Your task to perform on an android device: Go to Maps Image 0: 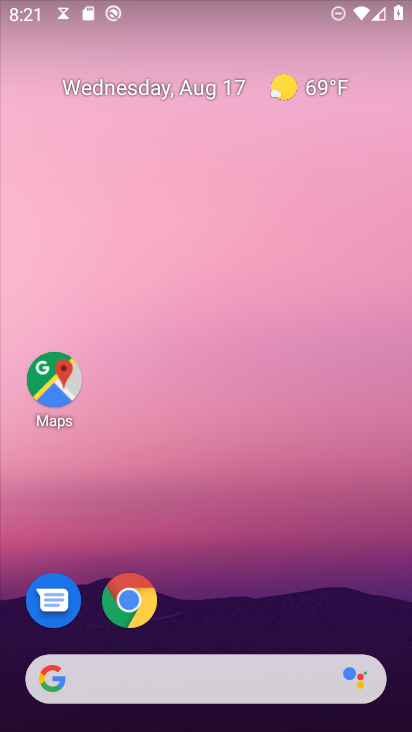
Step 0: press home button
Your task to perform on an android device: Go to Maps Image 1: 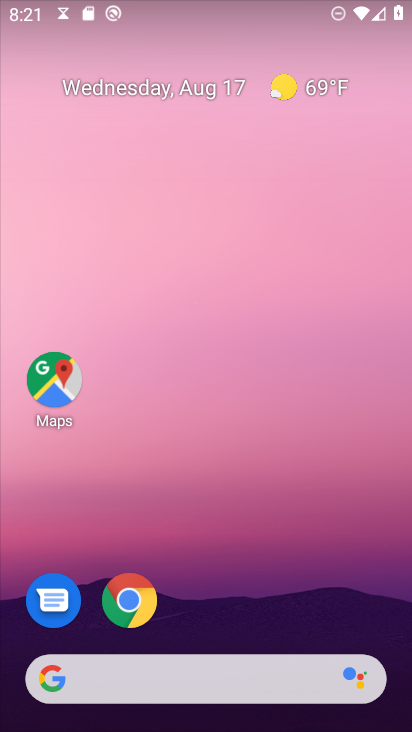
Step 1: click (40, 384)
Your task to perform on an android device: Go to Maps Image 2: 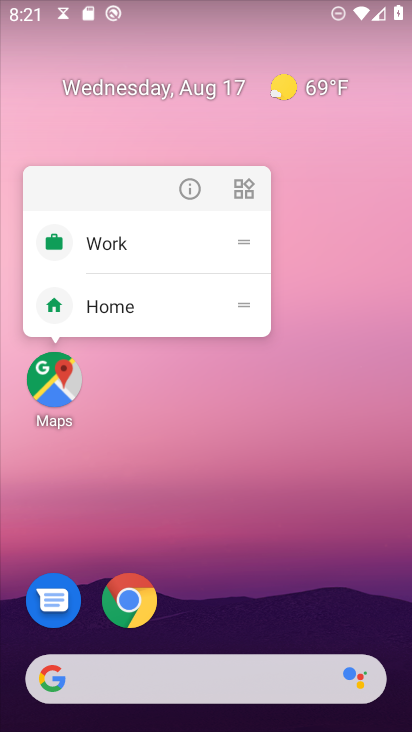
Step 2: click (39, 384)
Your task to perform on an android device: Go to Maps Image 3: 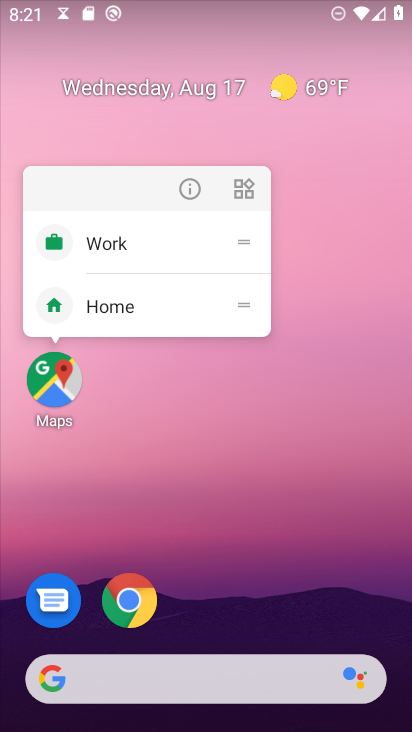
Step 3: click (39, 384)
Your task to perform on an android device: Go to Maps Image 4: 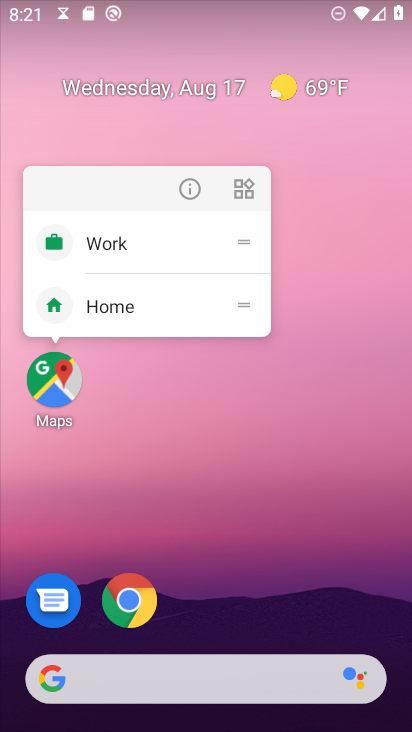
Step 4: click (54, 404)
Your task to perform on an android device: Go to Maps Image 5: 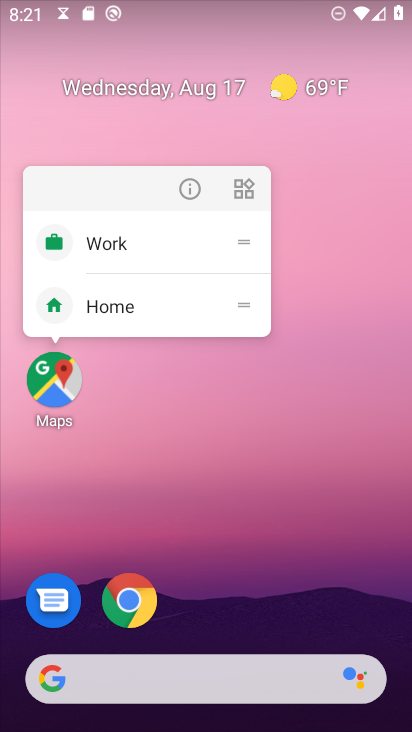
Step 5: click (59, 382)
Your task to perform on an android device: Go to Maps Image 6: 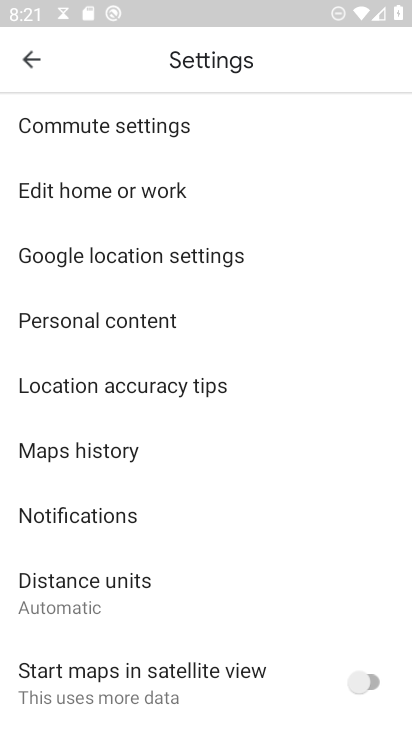
Step 6: click (45, 67)
Your task to perform on an android device: Go to Maps Image 7: 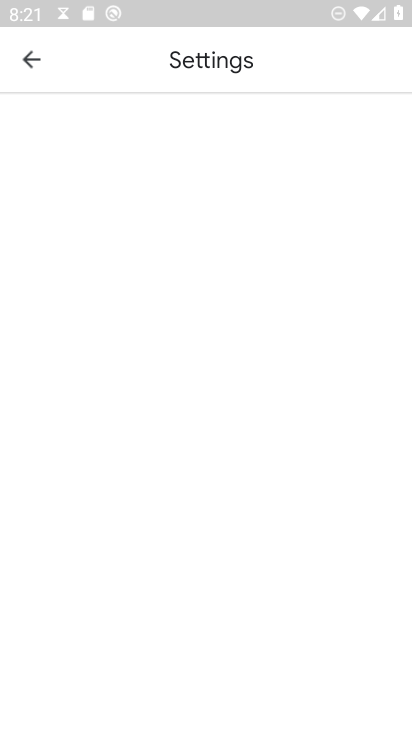
Step 7: click (28, 56)
Your task to perform on an android device: Go to Maps Image 8: 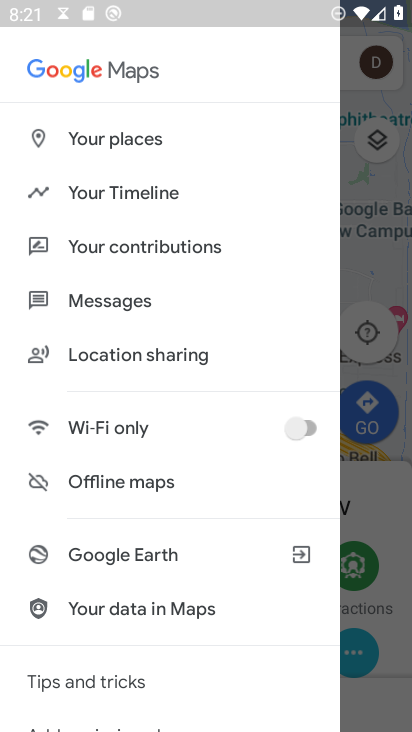
Step 8: click (351, 102)
Your task to perform on an android device: Go to Maps Image 9: 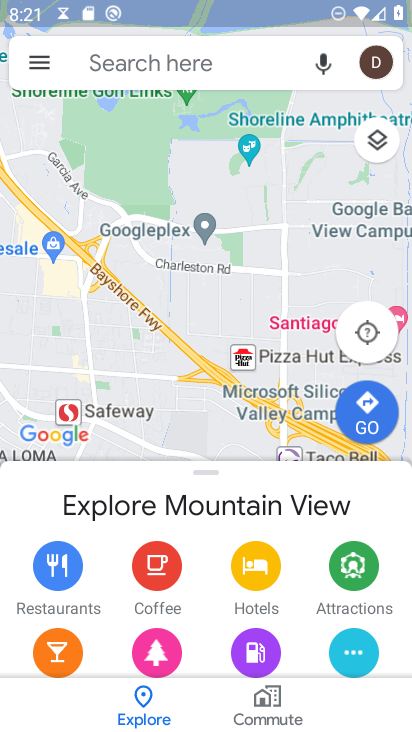
Step 9: task complete